Your task to perform on an android device: Search for pizza restaurants on Maps Image 0: 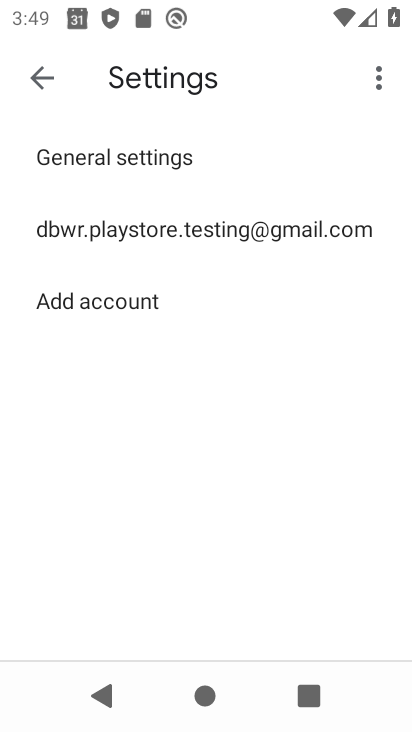
Step 0: press back button
Your task to perform on an android device: Search for pizza restaurants on Maps Image 1: 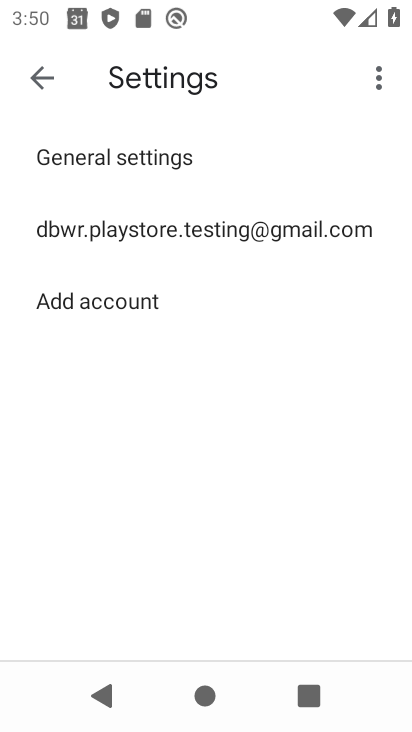
Step 1: press back button
Your task to perform on an android device: Search for pizza restaurants on Maps Image 2: 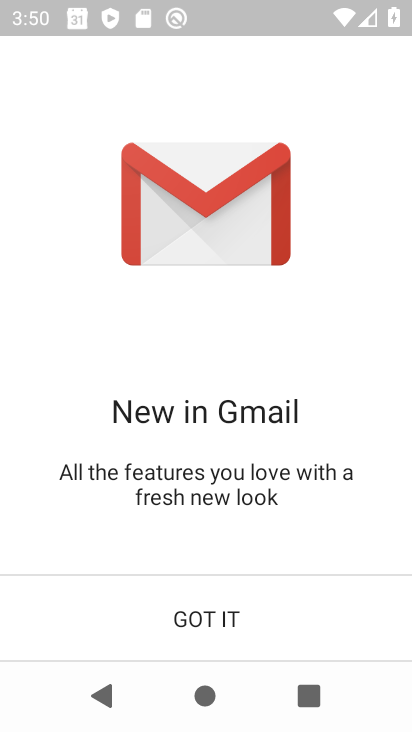
Step 2: click (217, 611)
Your task to perform on an android device: Search for pizza restaurants on Maps Image 3: 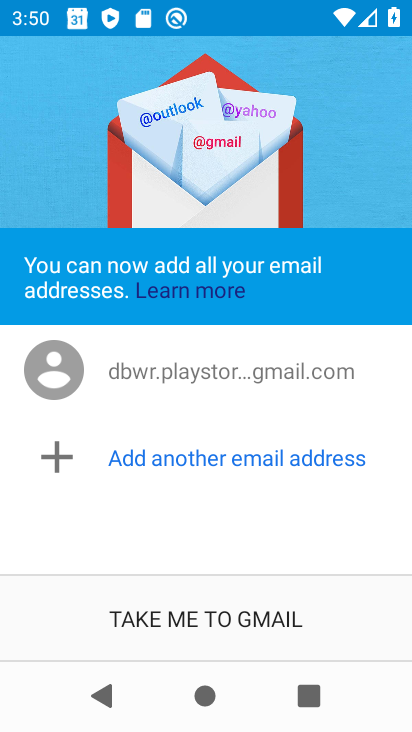
Step 3: click (204, 614)
Your task to perform on an android device: Search for pizza restaurants on Maps Image 4: 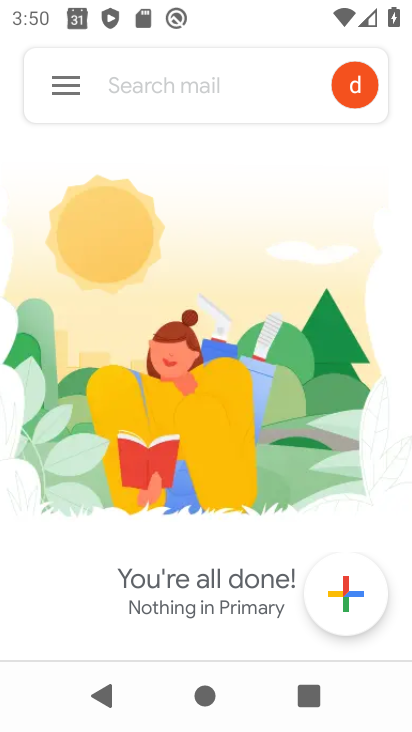
Step 4: press back button
Your task to perform on an android device: Search for pizza restaurants on Maps Image 5: 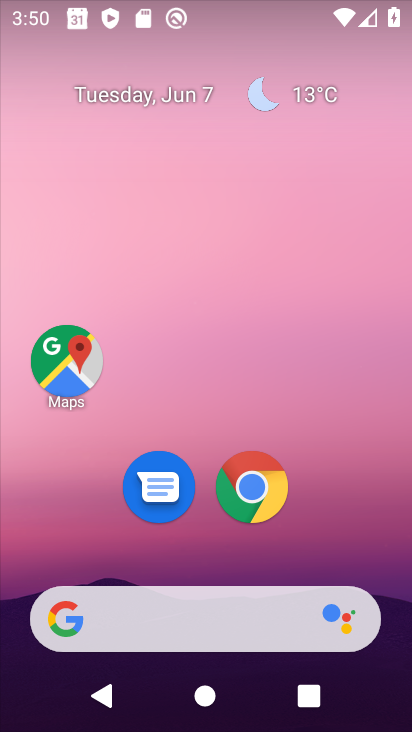
Step 5: click (91, 353)
Your task to perform on an android device: Search for pizza restaurants on Maps Image 6: 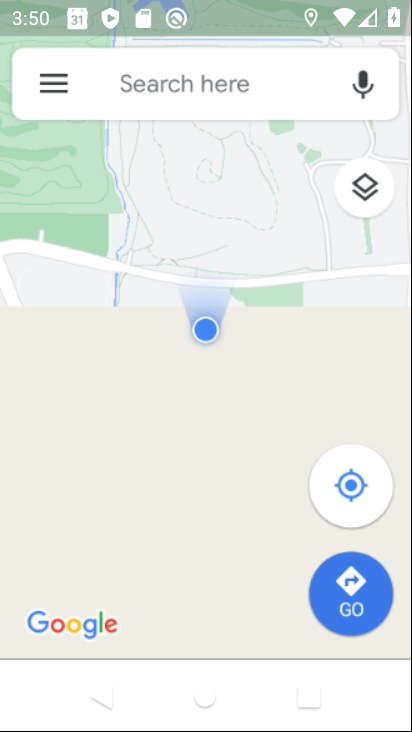
Step 6: click (221, 84)
Your task to perform on an android device: Search for pizza restaurants on Maps Image 7: 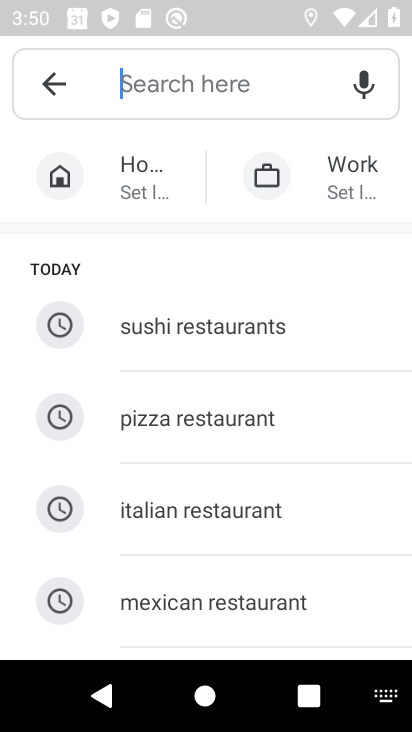
Step 7: click (168, 404)
Your task to perform on an android device: Search for pizza restaurants on Maps Image 8: 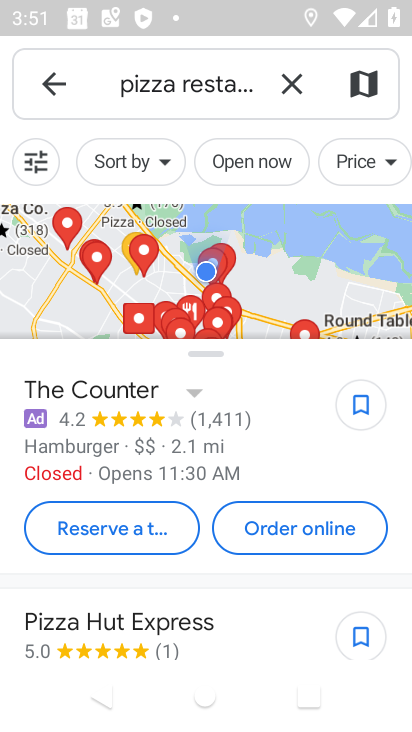
Step 8: task complete